Your task to perform on an android device: change timer sound Image 0: 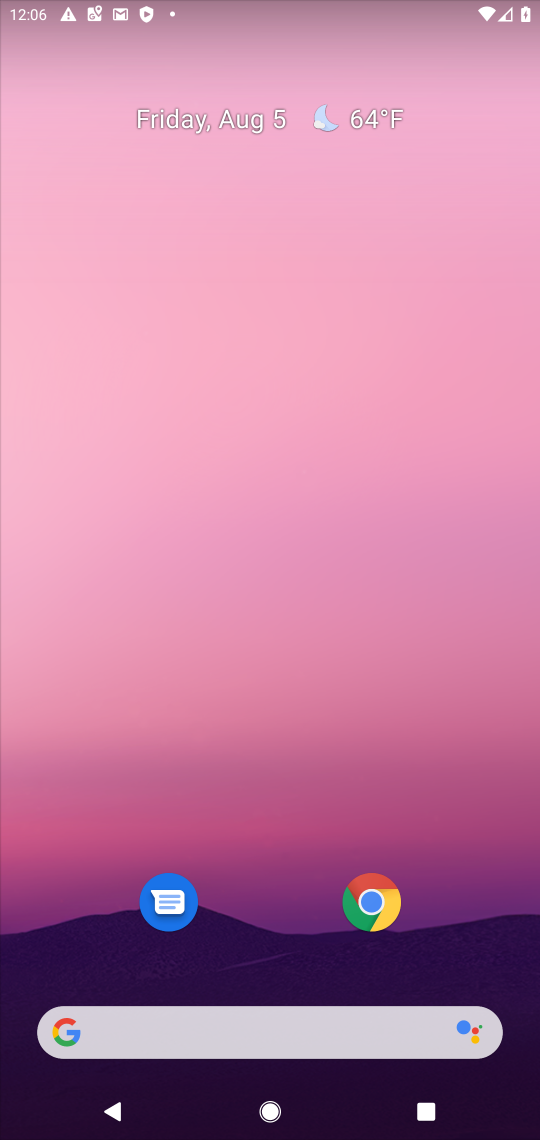
Step 0: drag from (301, 936) to (420, 117)
Your task to perform on an android device: change timer sound Image 1: 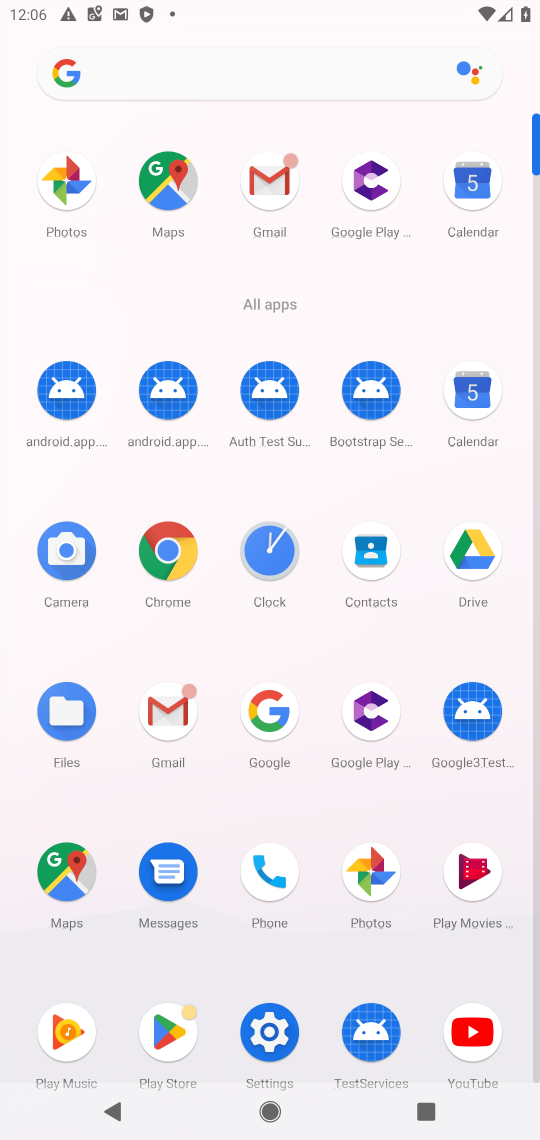
Step 1: click (263, 528)
Your task to perform on an android device: change timer sound Image 2: 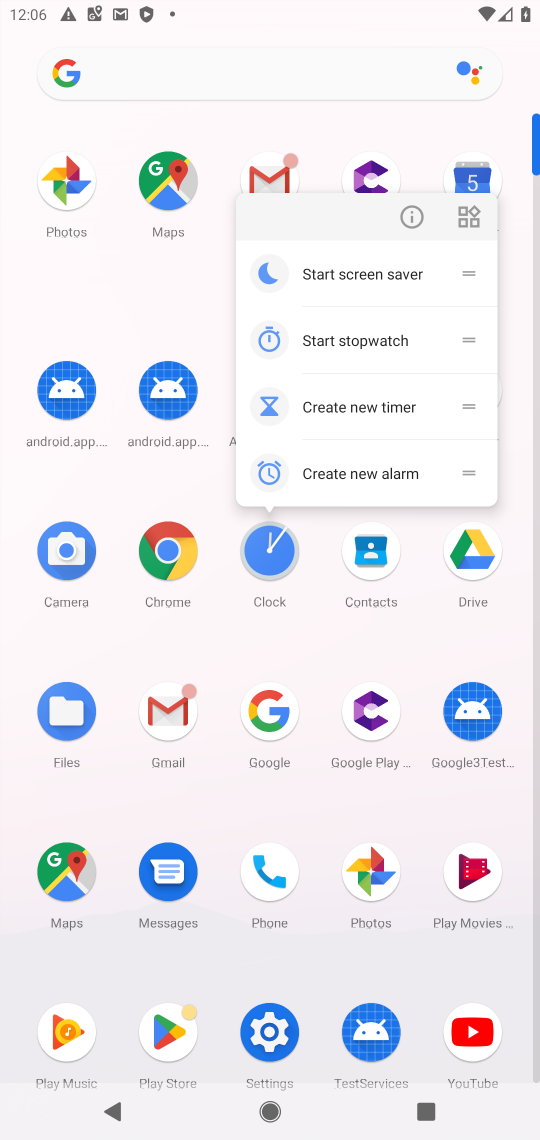
Step 2: click (269, 537)
Your task to perform on an android device: change timer sound Image 3: 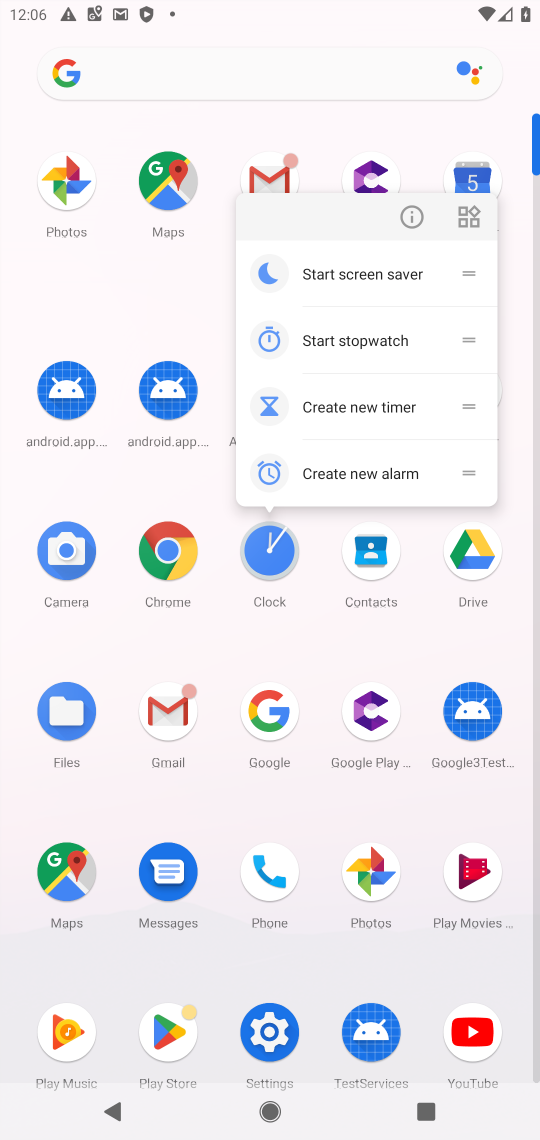
Step 3: click (268, 550)
Your task to perform on an android device: change timer sound Image 4: 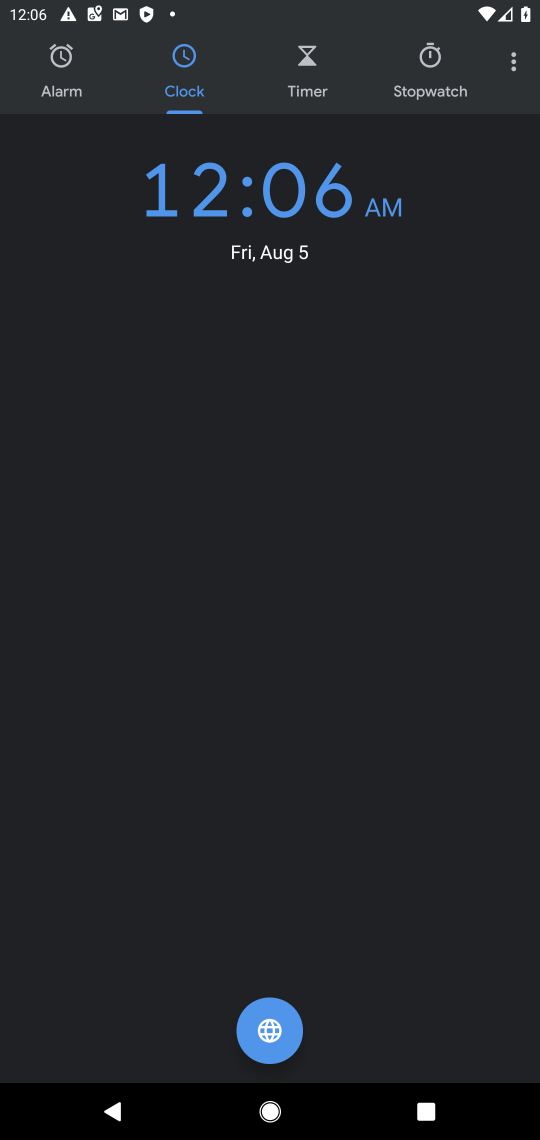
Step 4: click (518, 61)
Your task to perform on an android device: change timer sound Image 5: 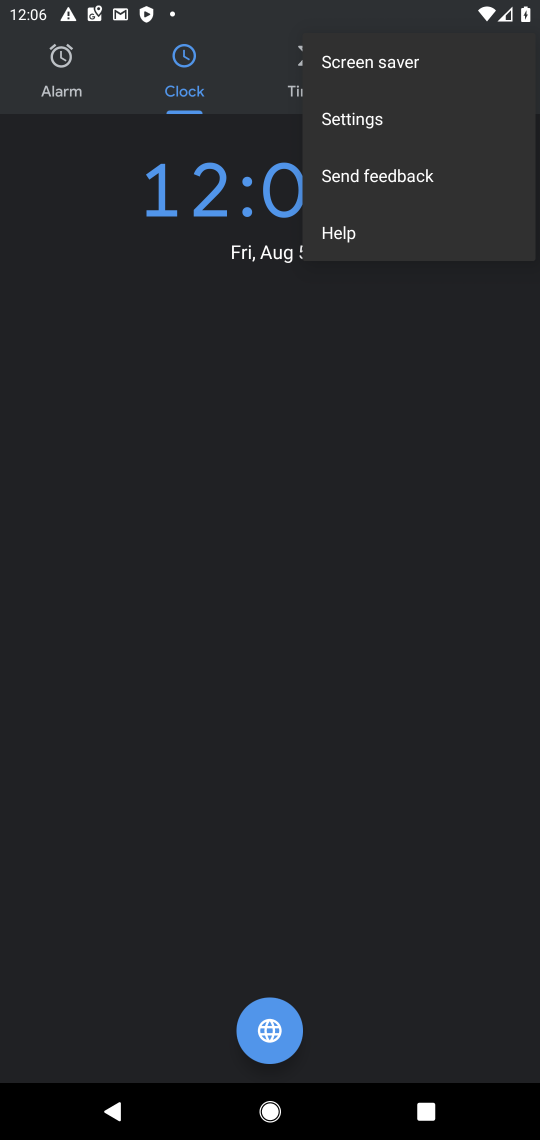
Step 5: click (406, 122)
Your task to perform on an android device: change timer sound Image 6: 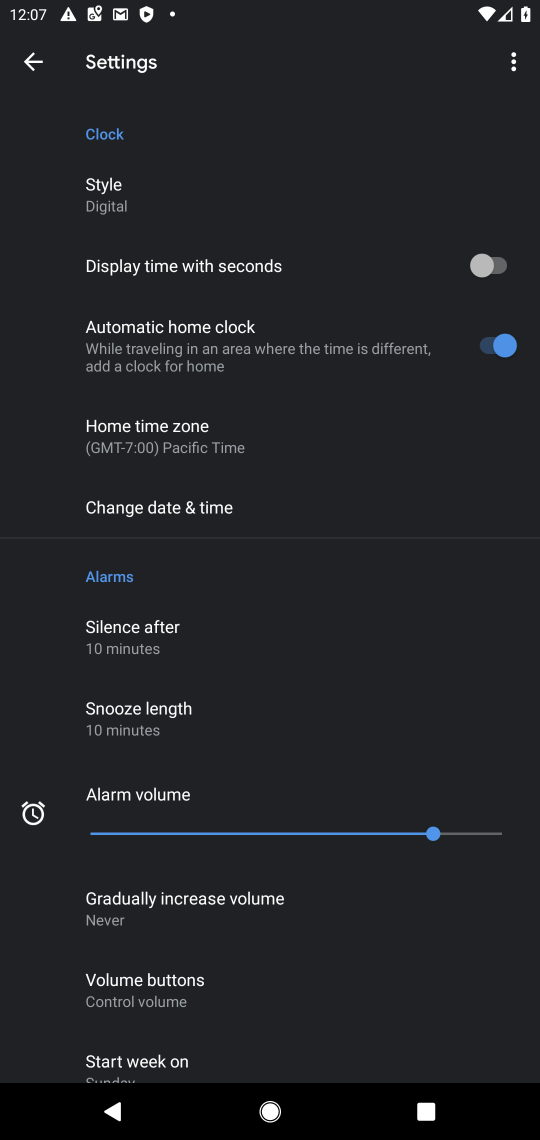
Step 6: drag from (259, 999) to (389, 516)
Your task to perform on an android device: change timer sound Image 7: 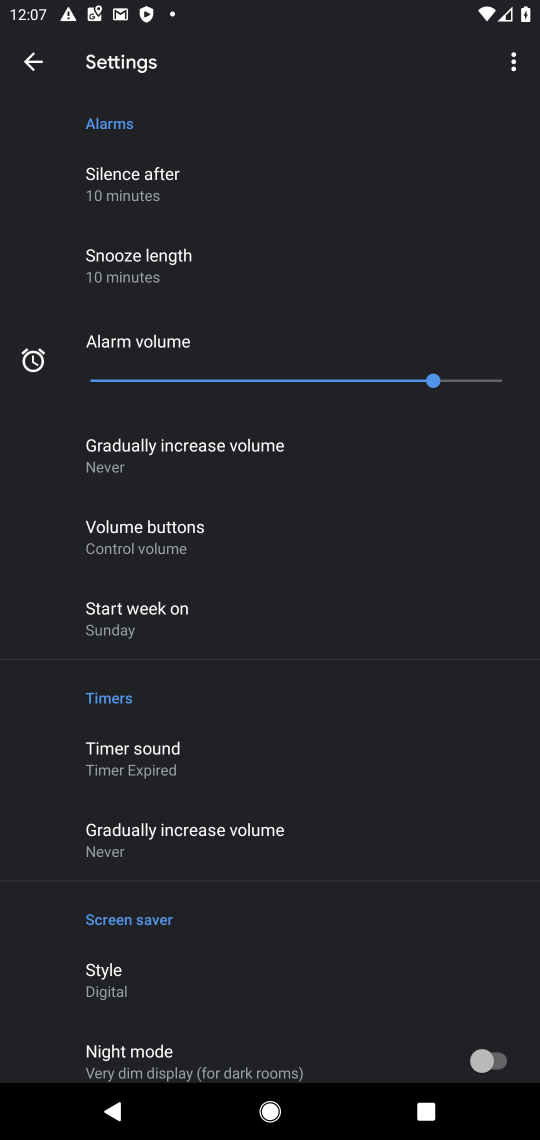
Step 7: click (213, 755)
Your task to perform on an android device: change timer sound Image 8: 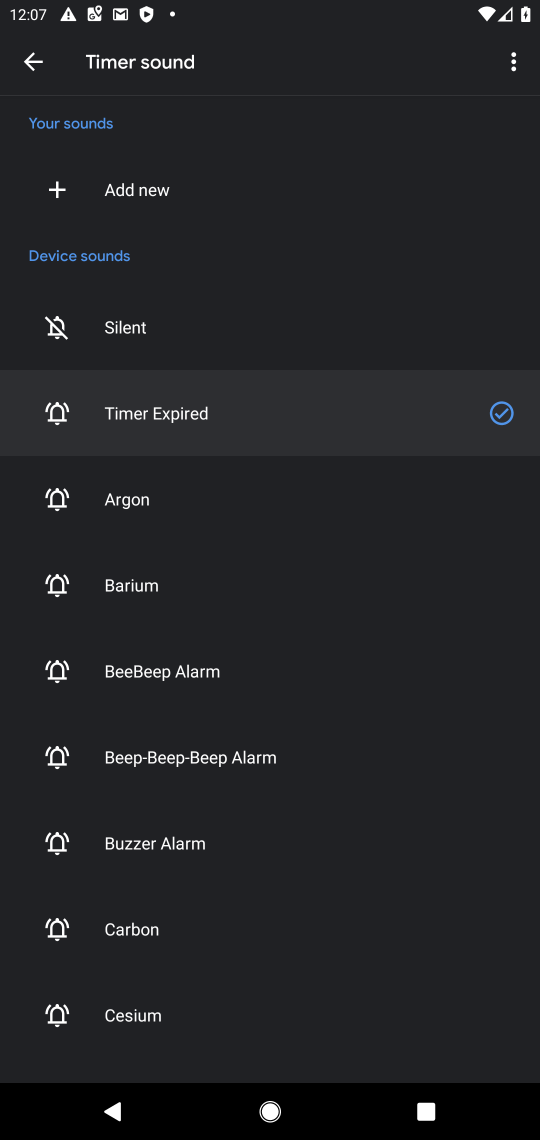
Step 8: click (213, 848)
Your task to perform on an android device: change timer sound Image 9: 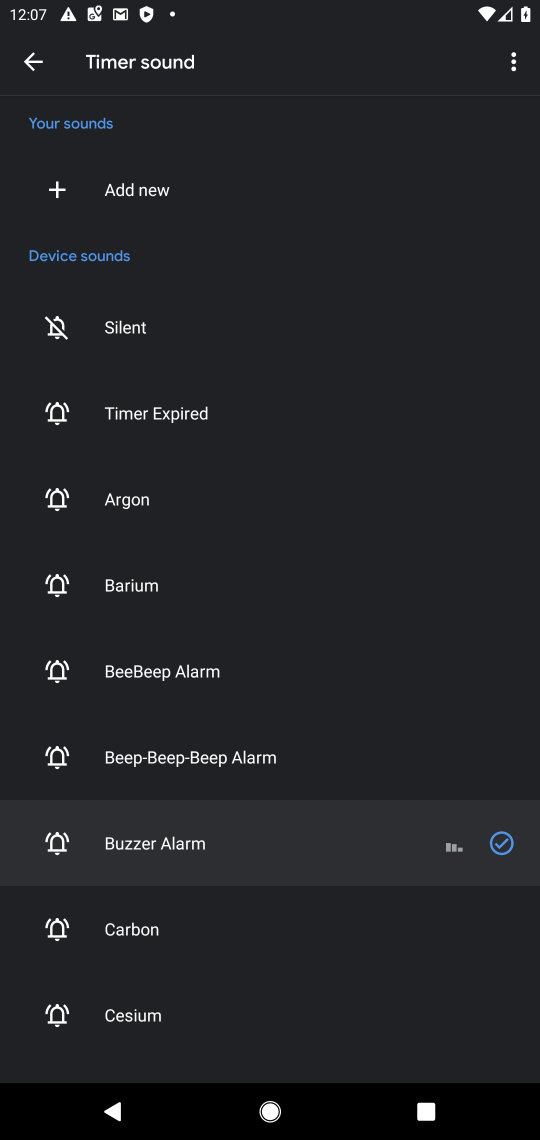
Step 9: task complete